Your task to perform on an android device: delete location history Image 0: 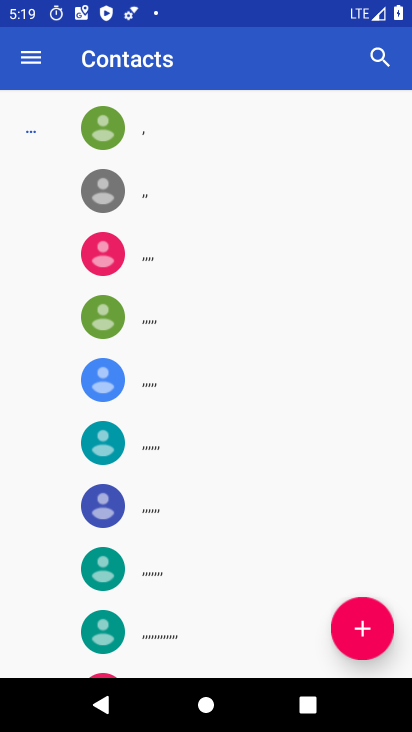
Step 0: press home button
Your task to perform on an android device: delete location history Image 1: 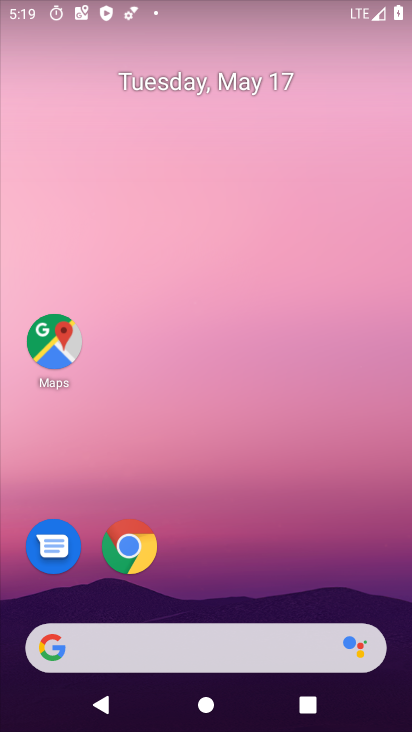
Step 1: drag from (215, 488) to (229, 205)
Your task to perform on an android device: delete location history Image 2: 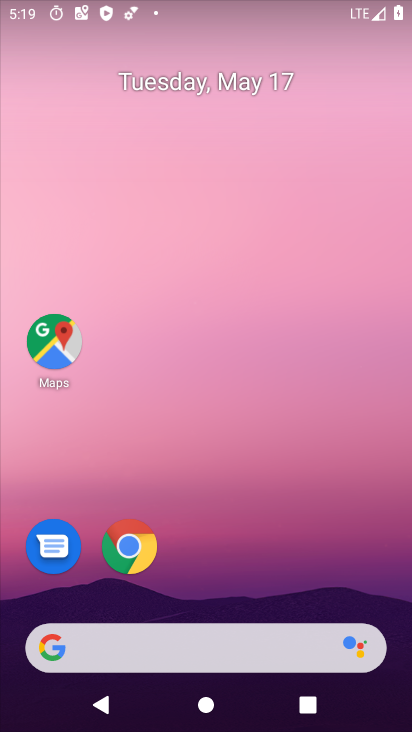
Step 2: drag from (227, 587) to (264, 130)
Your task to perform on an android device: delete location history Image 3: 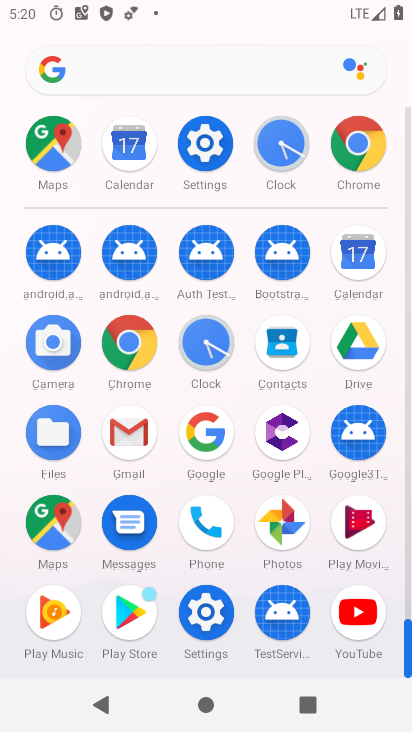
Step 3: click (50, 155)
Your task to perform on an android device: delete location history Image 4: 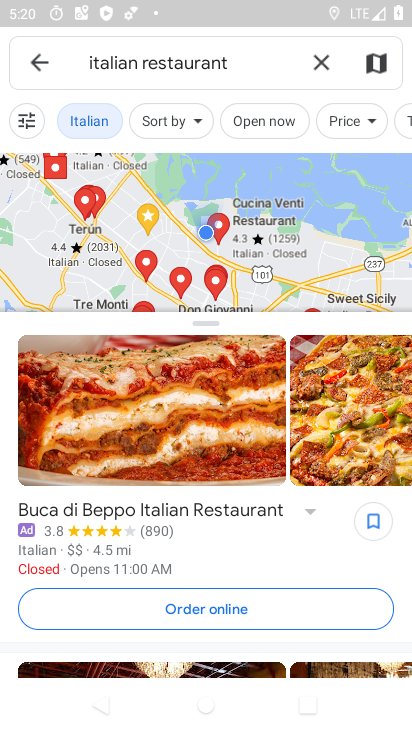
Step 4: click (37, 66)
Your task to perform on an android device: delete location history Image 5: 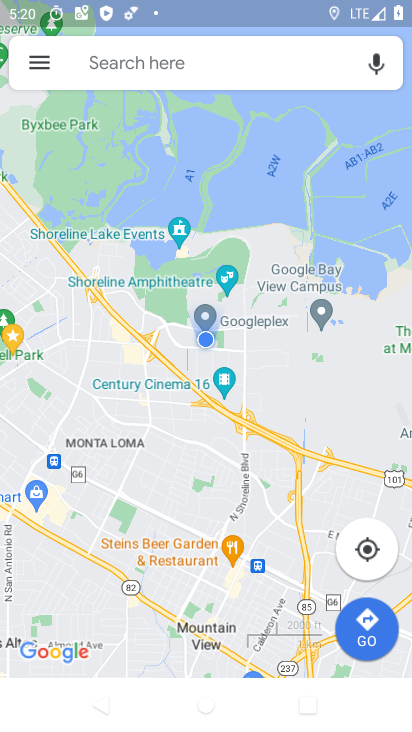
Step 5: click (27, 58)
Your task to perform on an android device: delete location history Image 6: 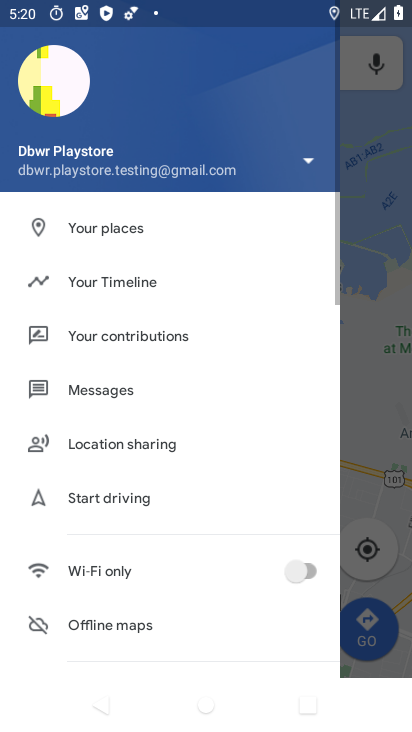
Step 6: click (126, 281)
Your task to perform on an android device: delete location history Image 7: 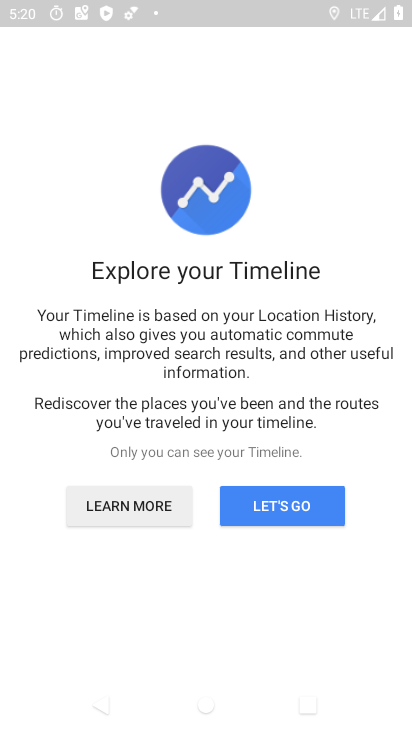
Step 7: click (267, 497)
Your task to perform on an android device: delete location history Image 8: 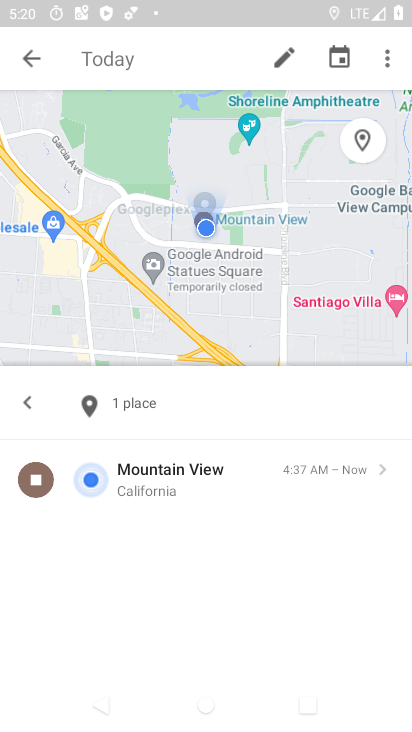
Step 8: click (384, 55)
Your task to perform on an android device: delete location history Image 9: 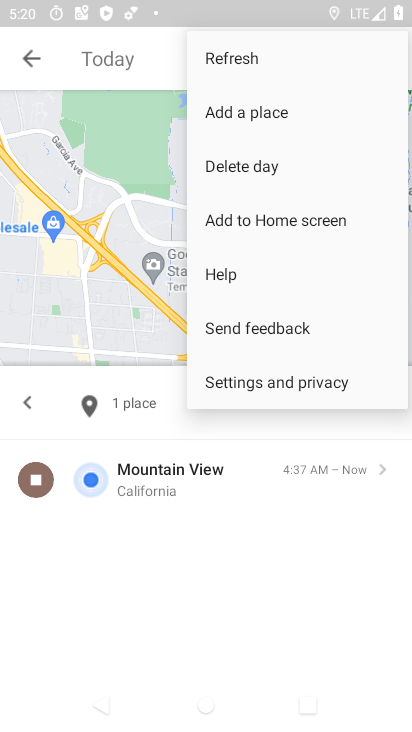
Step 9: click (297, 379)
Your task to perform on an android device: delete location history Image 10: 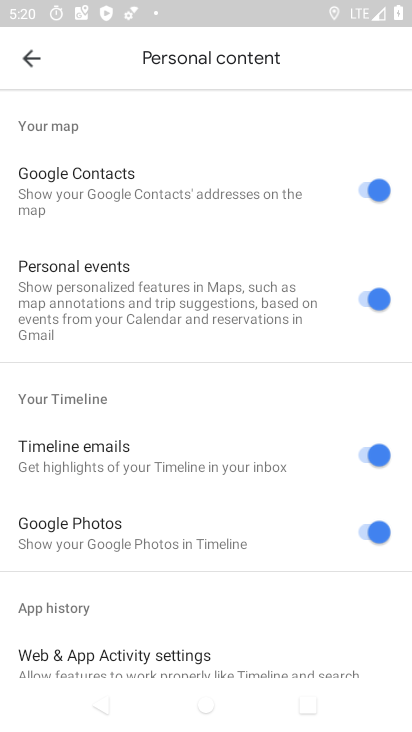
Step 10: click (182, 245)
Your task to perform on an android device: delete location history Image 11: 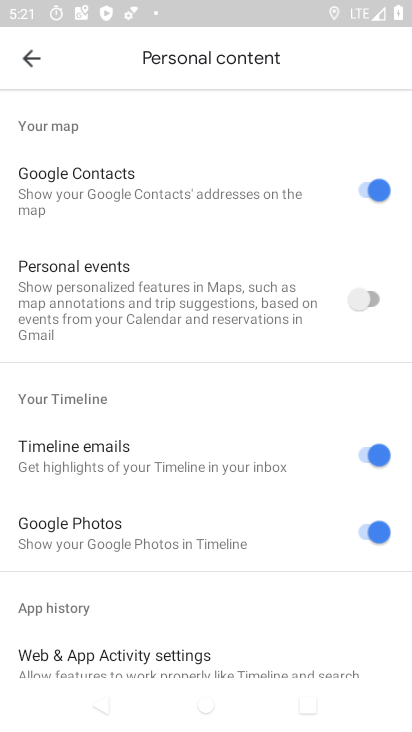
Step 11: drag from (157, 600) to (188, 211)
Your task to perform on an android device: delete location history Image 12: 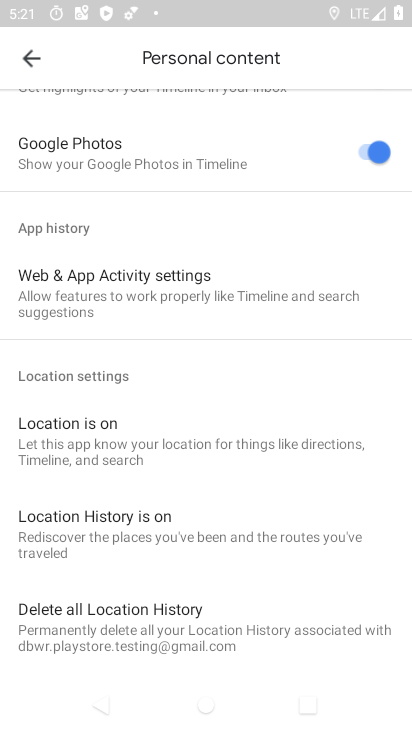
Step 12: click (116, 636)
Your task to perform on an android device: delete location history Image 13: 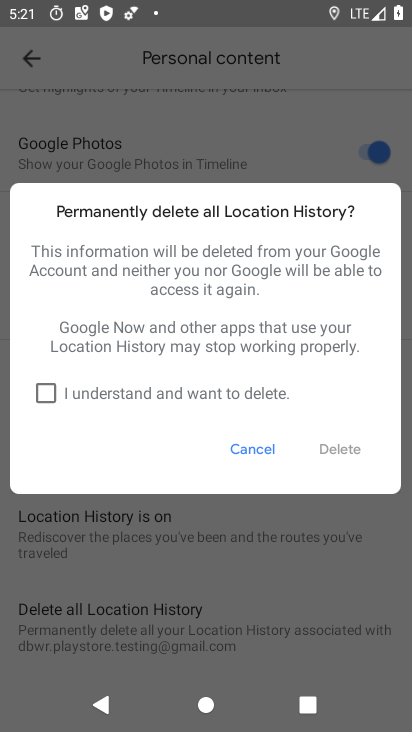
Step 13: click (43, 396)
Your task to perform on an android device: delete location history Image 14: 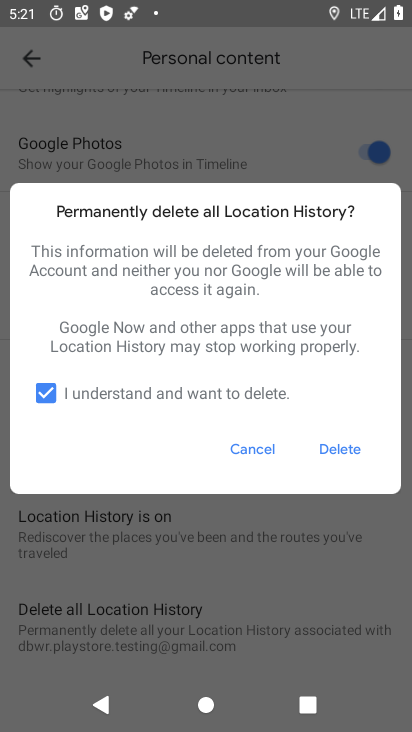
Step 14: click (318, 455)
Your task to perform on an android device: delete location history Image 15: 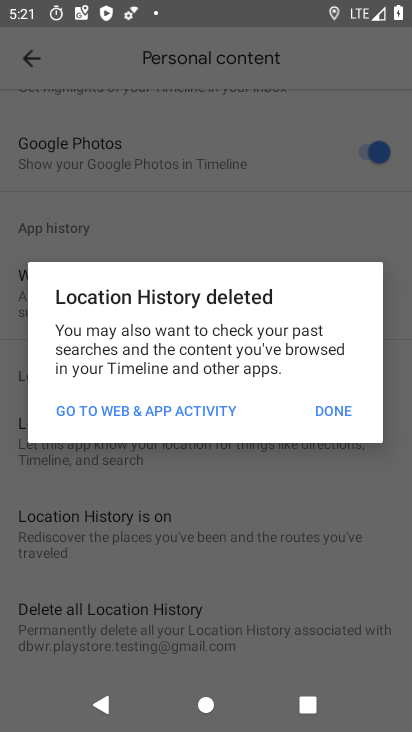
Step 15: click (333, 410)
Your task to perform on an android device: delete location history Image 16: 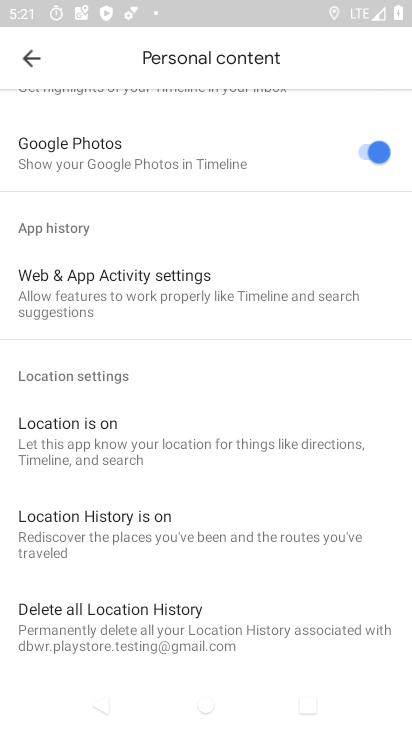
Step 16: task complete